Your task to perform on an android device: Open network settings Image 0: 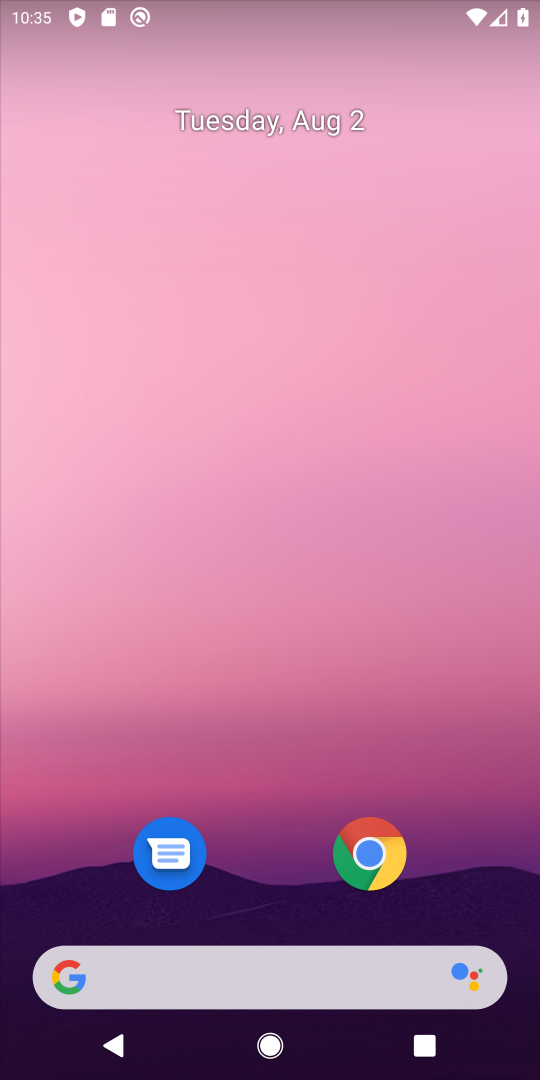
Step 0: drag from (302, 823) to (328, 76)
Your task to perform on an android device: Open network settings Image 1: 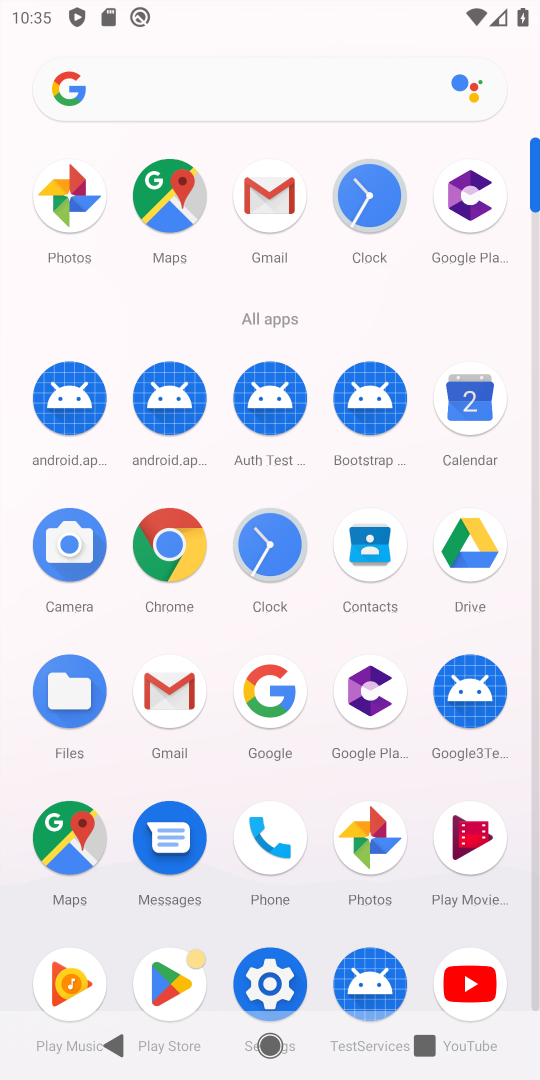
Step 1: click (270, 977)
Your task to perform on an android device: Open network settings Image 2: 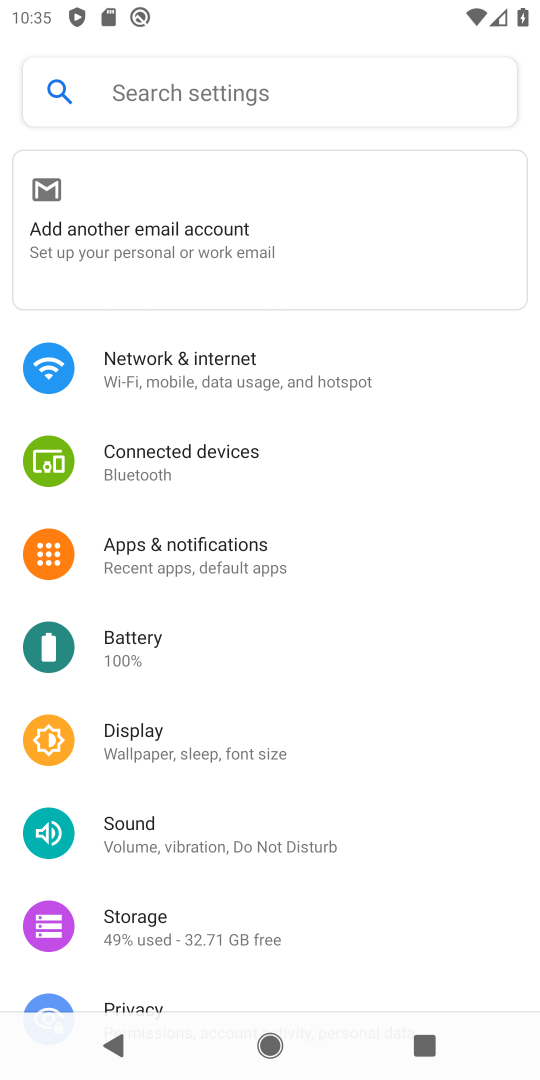
Step 2: click (212, 381)
Your task to perform on an android device: Open network settings Image 3: 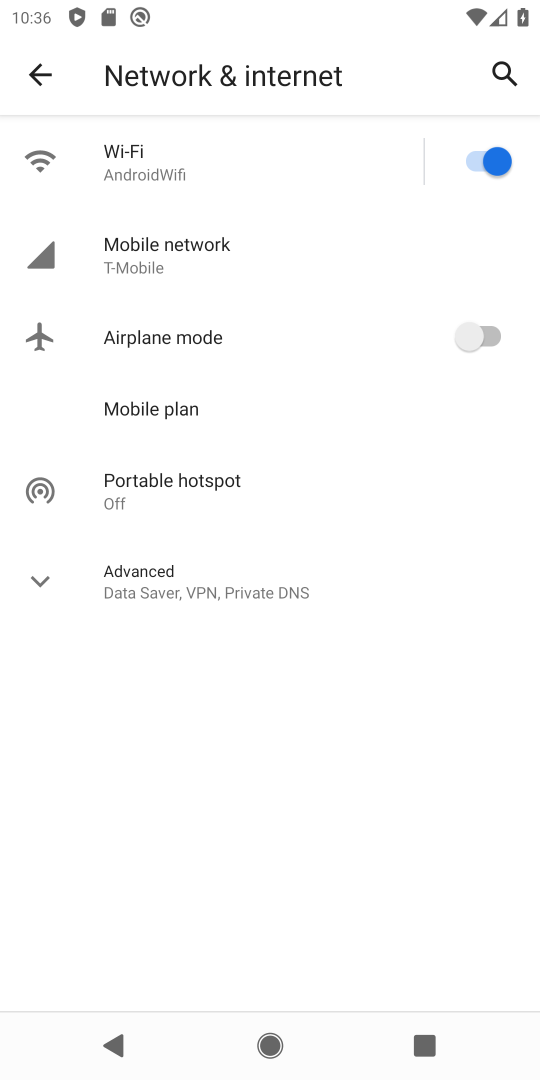
Step 3: task complete